Your task to perform on an android device: toggle wifi Image 0: 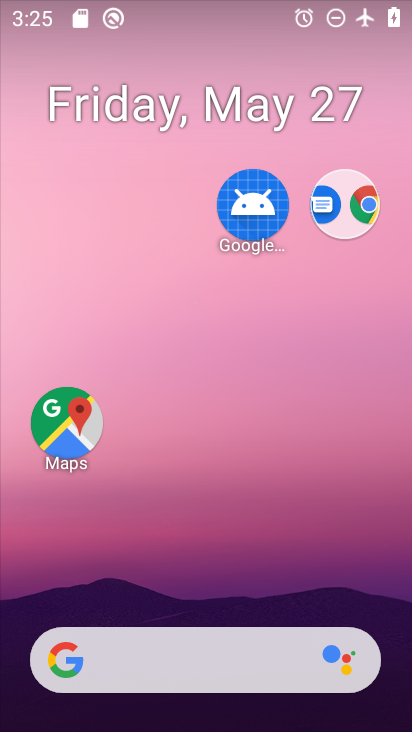
Step 0: drag from (248, 566) to (292, 39)
Your task to perform on an android device: toggle wifi Image 1: 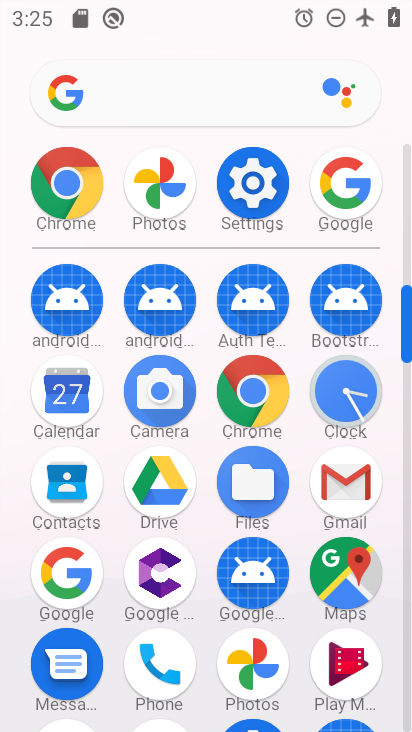
Step 1: click (262, 202)
Your task to perform on an android device: toggle wifi Image 2: 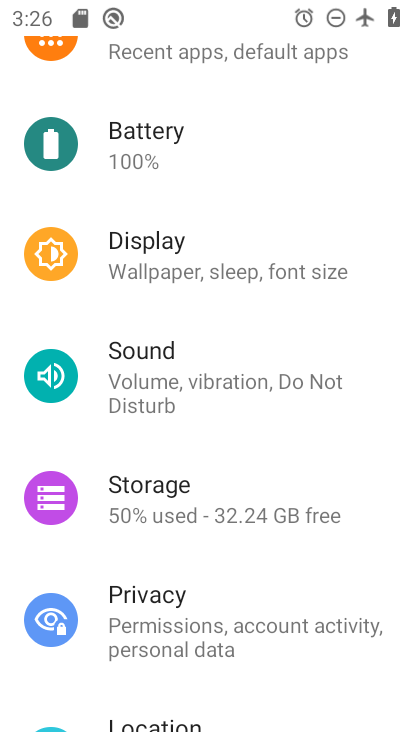
Step 2: drag from (262, 202) to (256, 341)
Your task to perform on an android device: toggle wifi Image 3: 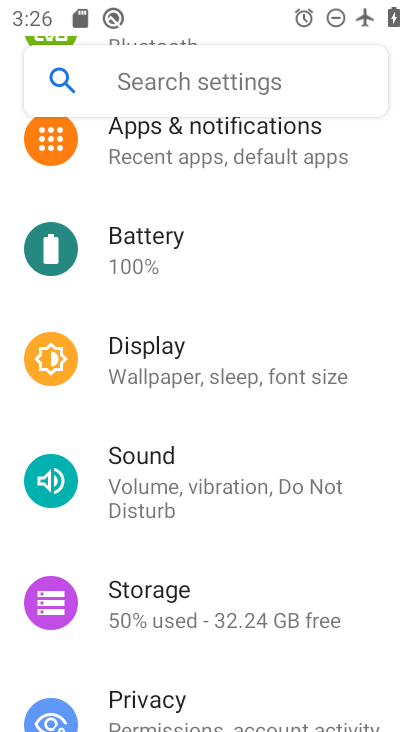
Step 3: drag from (261, 204) to (289, 629)
Your task to perform on an android device: toggle wifi Image 4: 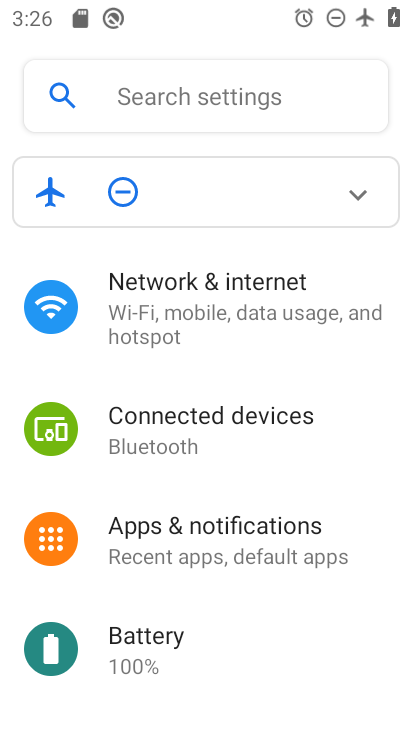
Step 4: click (271, 300)
Your task to perform on an android device: toggle wifi Image 5: 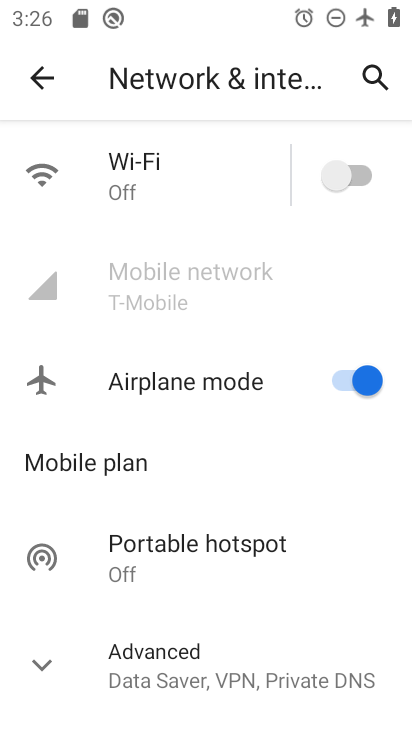
Step 5: click (343, 183)
Your task to perform on an android device: toggle wifi Image 6: 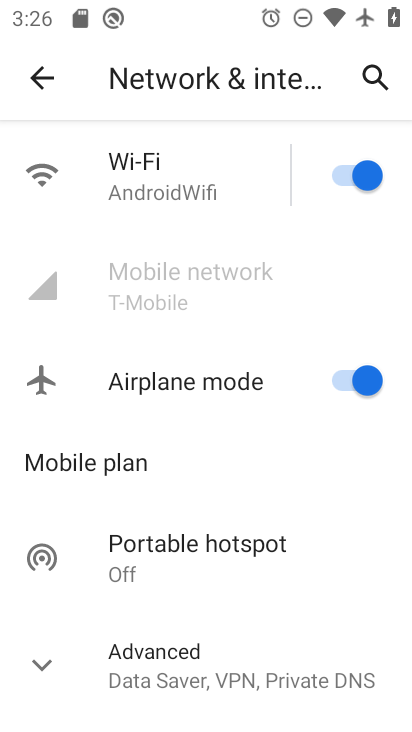
Step 6: task complete